Your task to perform on an android device: find which apps use the phone's location Image 0: 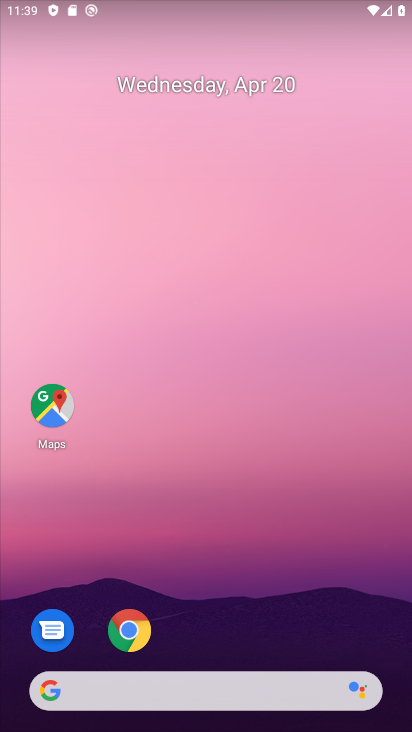
Step 0: drag from (179, 658) to (260, 88)
Your task to perform on an android device: find which apps use the phone's location Image 1: 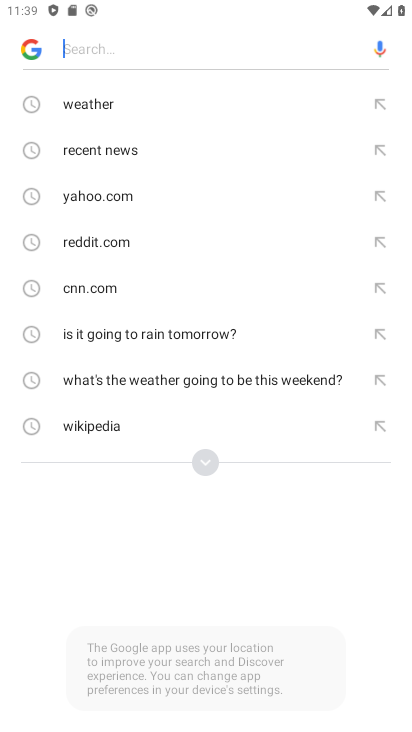
Step 1: press back button
Your task to perform on an android device: find which apps use the phone's location Image 2: 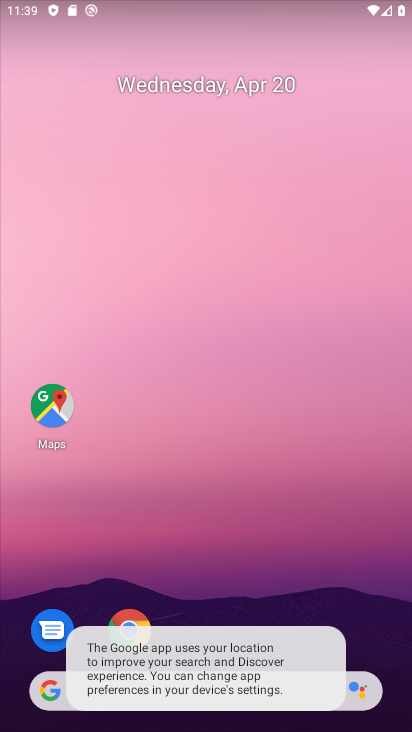
Step 2: drag from (252, 651) to (359, 56)
Your task to perform on an android device: find which apps use the phone's location Image 3: 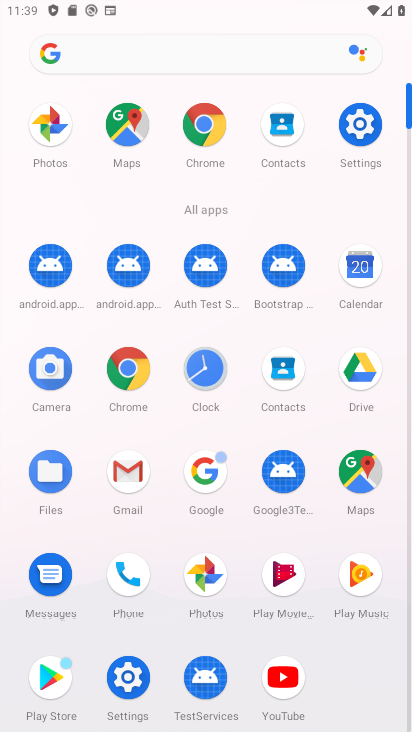
Step 3: click (131, 676)
Your task to perform on an android device: find which apps use the phone's location Image 4: 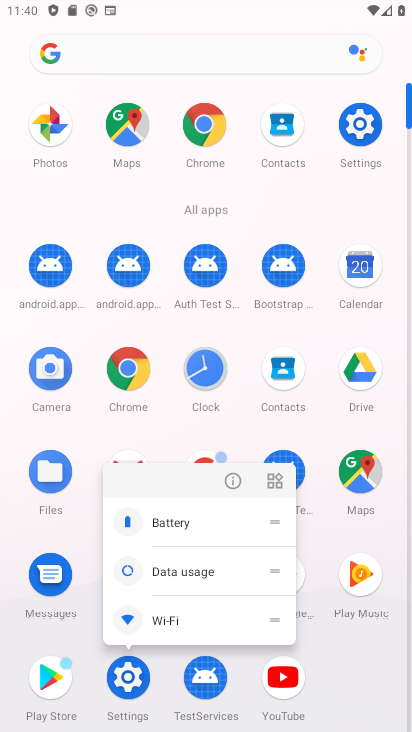
Step 4: click (126, 681)
Your task to perform on an android device: find which apps use the phone's location Image 5: 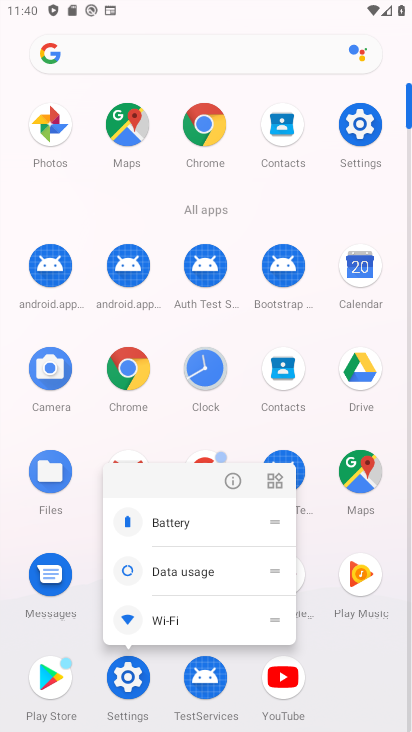
Step 5: click (342, 125)
Your task to perform on an android device: find which apps use the phone's location Image 6: 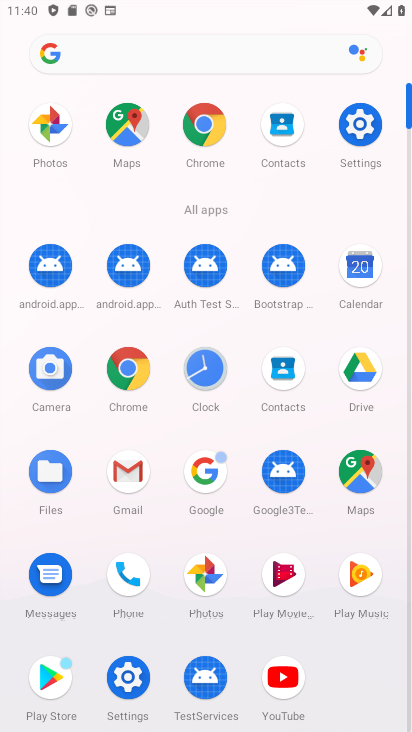
Step 6: click (369, 123)
Your task to perform on an android device: find which apps use the phone's location Image 7: 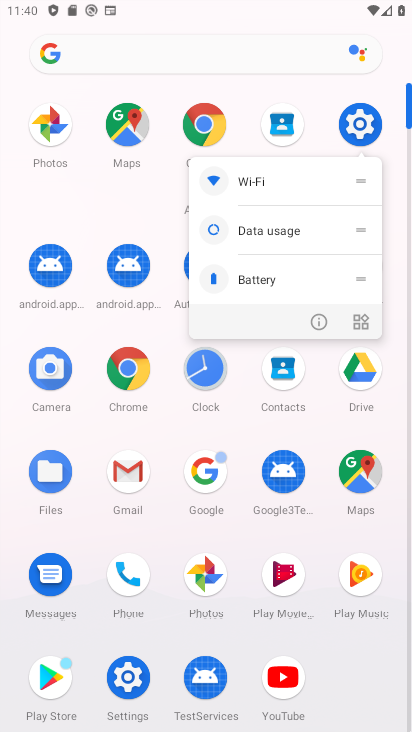
Step 7: click (363, 114)
Your task to perform on an android device: find which apps use the phone's location Image 8: 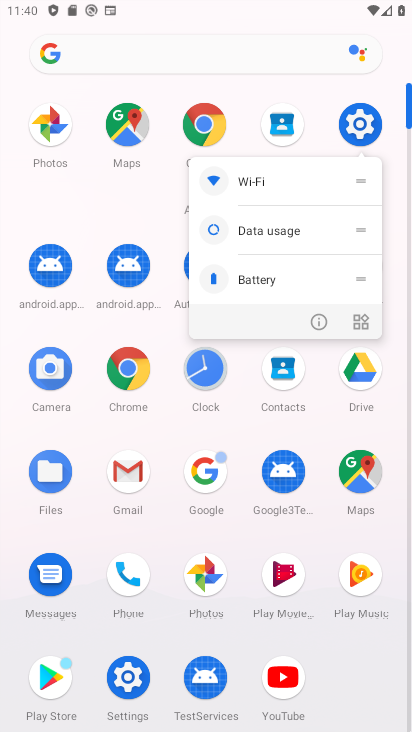
Step 8: click (359, 124)
Your task to perform on an android device: find which apps use the phone's location Image 9: 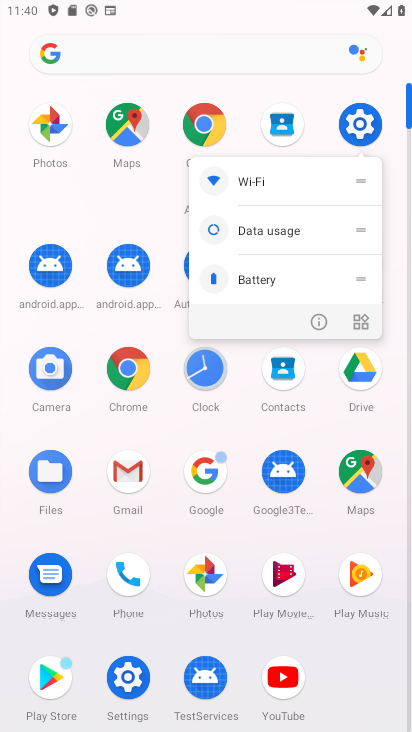
Step 9: click (357, 137)
Your task to perform on an android device: find which apps use the phone's location Image 10: 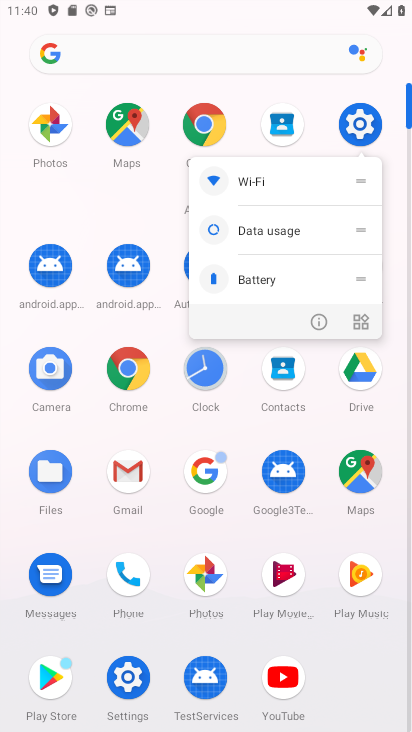
Step 10: click (351, 119)
Your task to perform on an android device: find which apps use the phone's location Image 11: 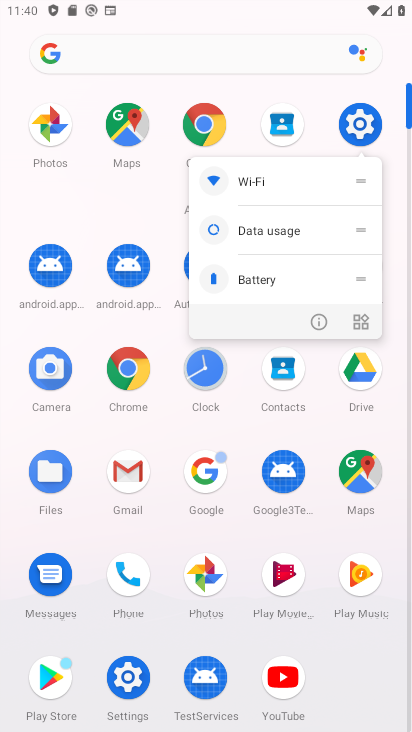
Step 11: click (357, 120)
Your task to perform on an android device: find which apps use the phone's location Image 12: 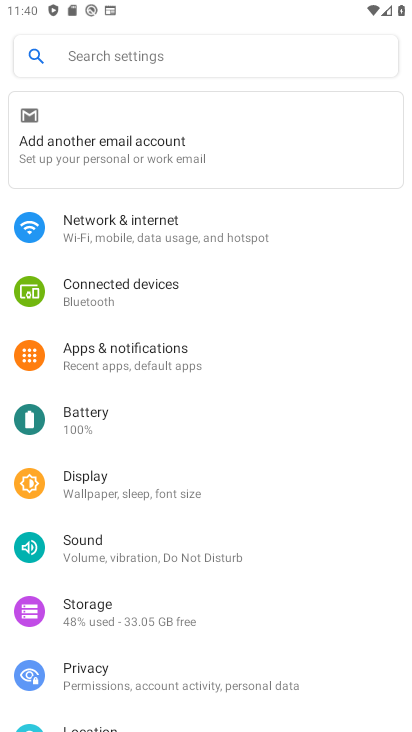
Step 12: drag from (161, 666) to (240, 316)
Your task to perform on an android device: find which apps use the phone's location Image 13: 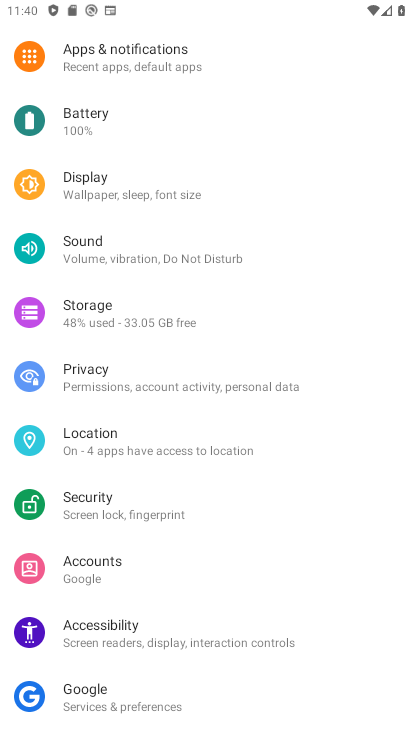
Step 13: click (113, 441)
Your task to perform on an android device: find which apps use the phone's location Image 14: 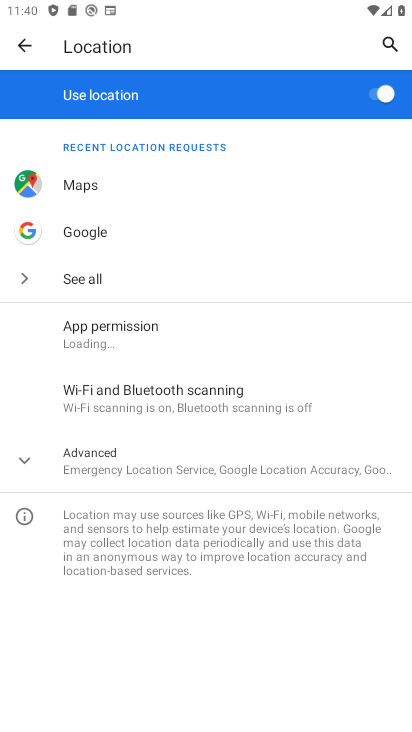
Step 14: click (156, 341)
Your task to perform on an android device: find which apps use the phone's location Image 15: 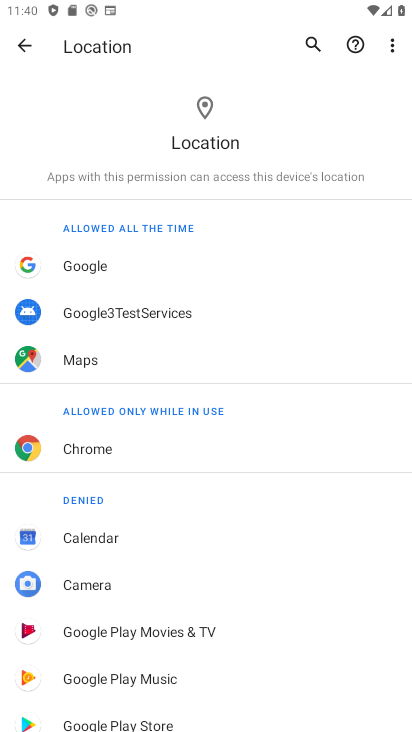
Step 15: task complete